Your task to perform on an android device: Open calendar and show me the fourth week of next month Image 0: 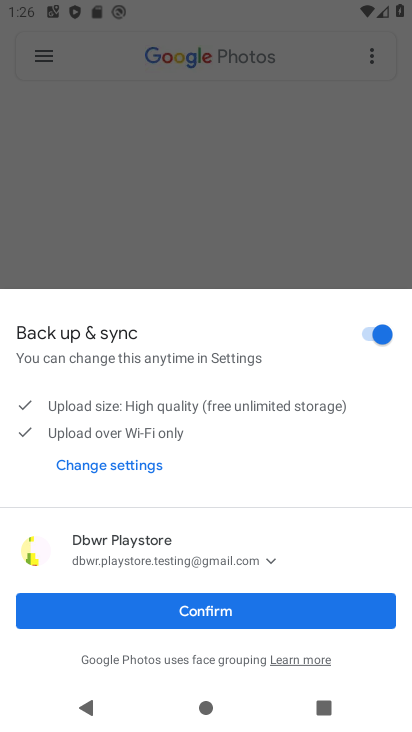
Step 0: press home button
Your task to perform on an android device: Open calendar and show me the fourth week of next month Image 1: 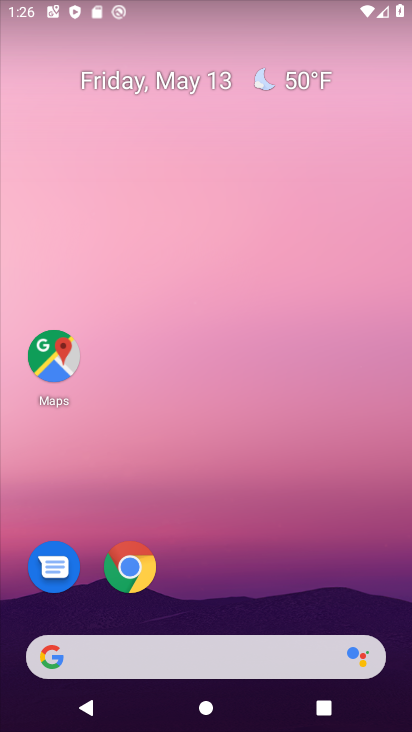
Step 1: drag from (201, 637) to (219, 195)
Your task to perform on an android device: Open calendar and show me the fourth week of next month Image 2: 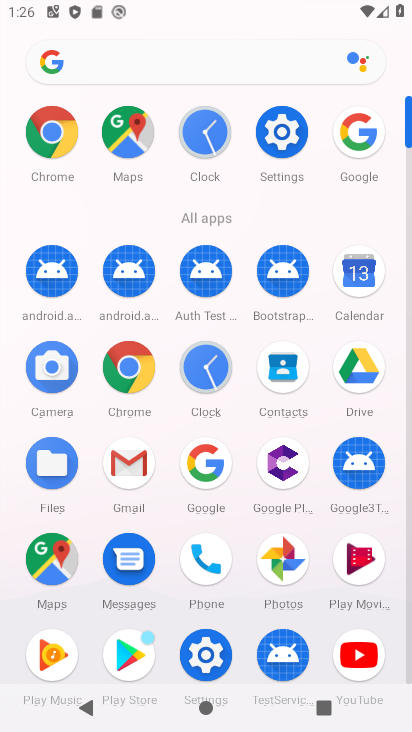
Step 2: click (376, 280)
Your task to perform on an android device: Open calendar and show me the fourth week of next month Image 3: 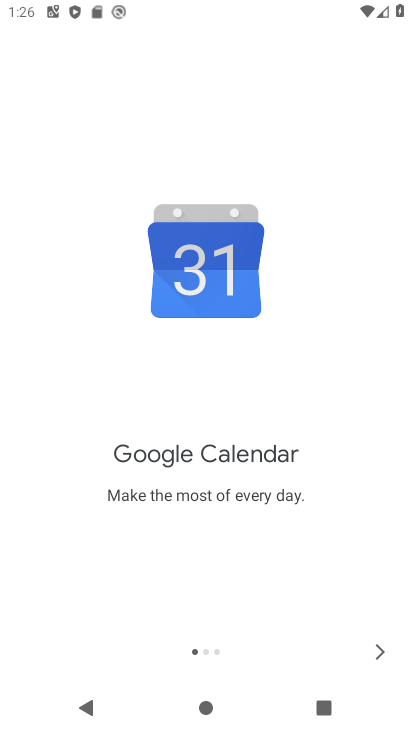
Step 3: click (382, 646)
Your task to perform on an android device: Open calendar and show me the fourth week of next month Image 4: 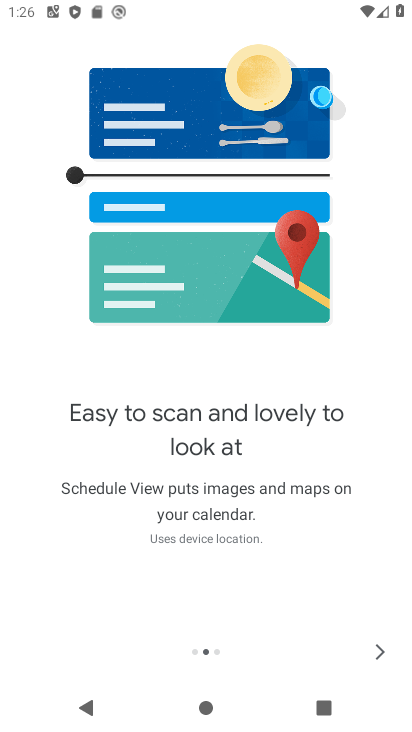
Step 4: click (379, 647)
Your task to perform on an android device: Open calendar and show me the fourth week of next month Image 5: 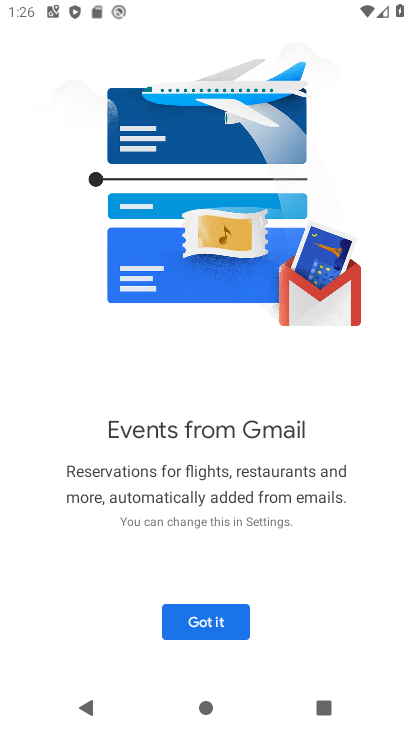
Step 5: click (231, 625)
Your task to perform on an android device: Open calendar and show me the fourth week of next month Image 6: 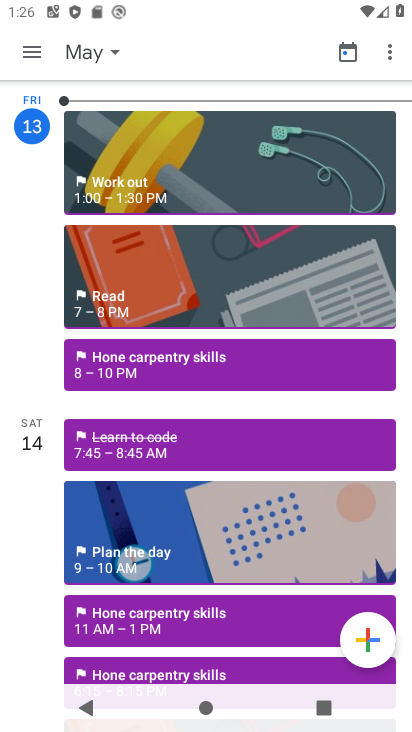
Step 6: click (87, 58)
Your task to perform on an android device: Open calendar and show me the fourth week of next month Image 7: 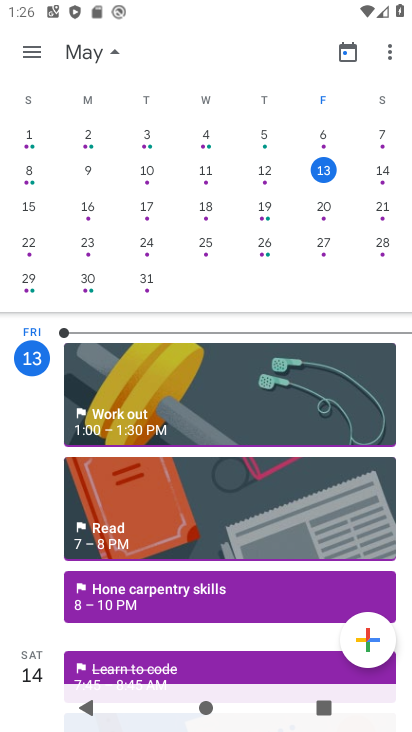
Step 7: drag from (277, 223) to (14, 194)
Your task to perform on an android device: Open calendar and show me the fourth week of next month Image 8: 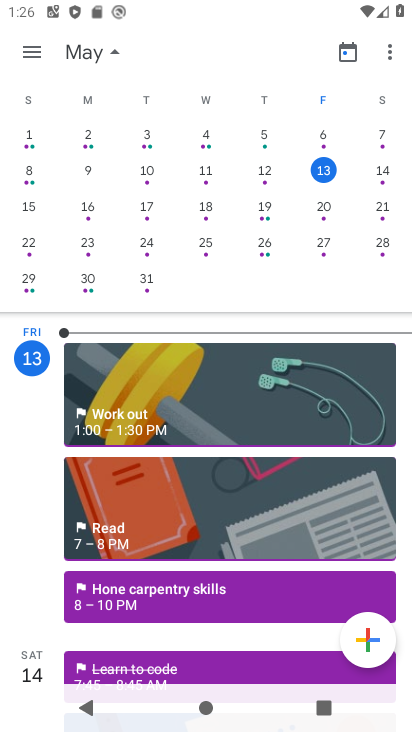
Step 8: drag from (395, 186) to (2, 188)
Your task to perform on an android device: Open calendar and show me the fourth week of next month Image 9: 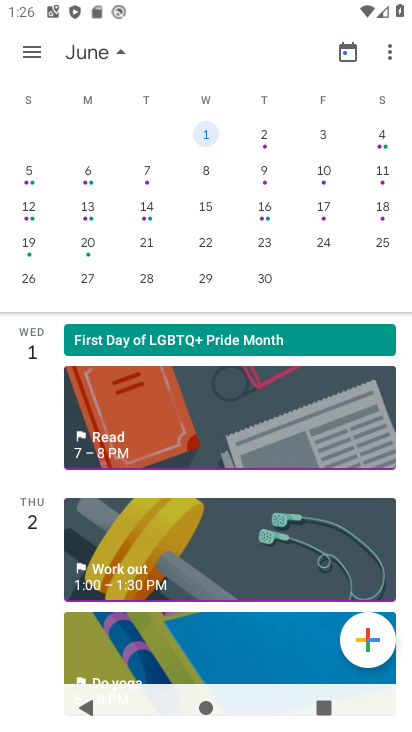
Step 9: click (25, 246)
Your task to perform on an android device: Open calendar and show me the fourth week of next month Image 10: 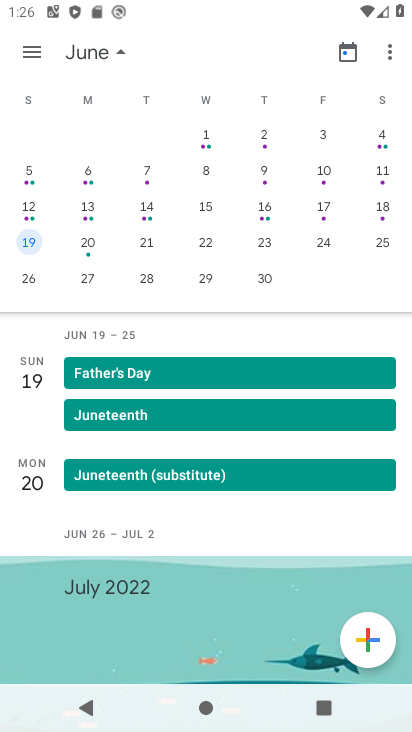
Step 10: task complete